Your task to perform on an android device: Open ESPN.com Image 0: 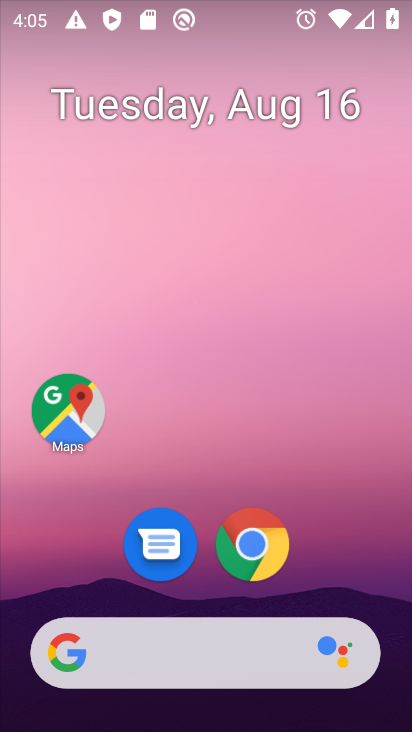
Step 0: click (266, 549)
Your task to perform on an android device: Open ESPN.com Image 1: 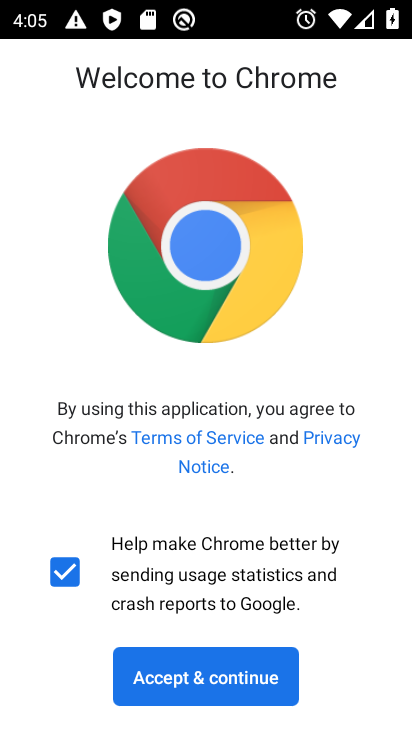
Step 1: click (193, 667)
Your task to perform on an android device: Open ESPN.com Image 2: 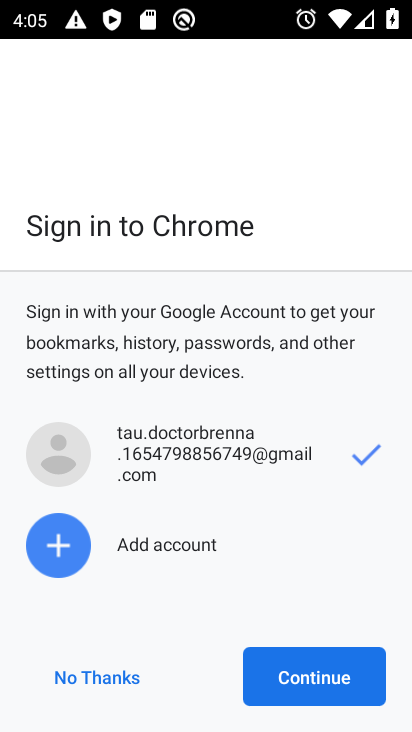
Step 2: click (281, 669)
Your task to perform on an android device: Open ESPN.com Image 3: 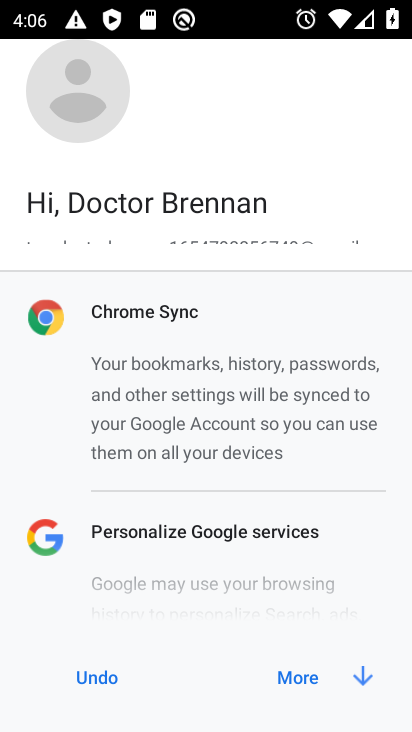
Step 3: click (317, 671)
Your task to perform on an android device: Open ESPN.com Image 4: 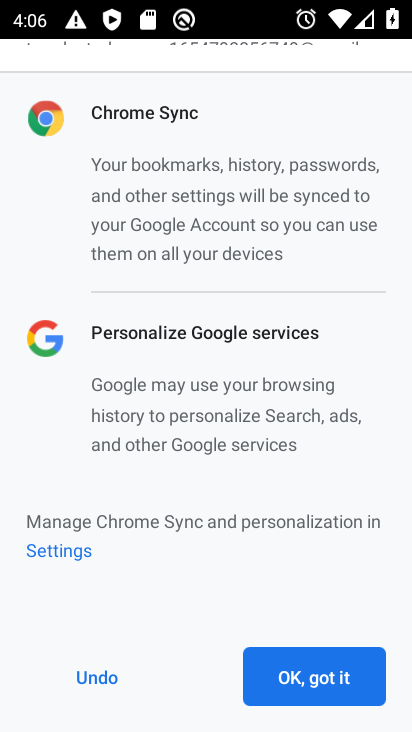
Step 4: click (318, 671)
Your task to perform on an android device: Open ESPN.com Image 5: 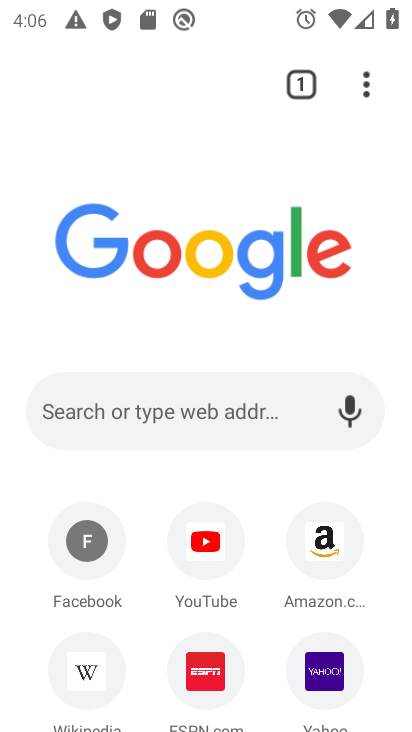
Step 5: click (212, 653)
Your task to perform on an android device: Open ESPN.com Image 6: 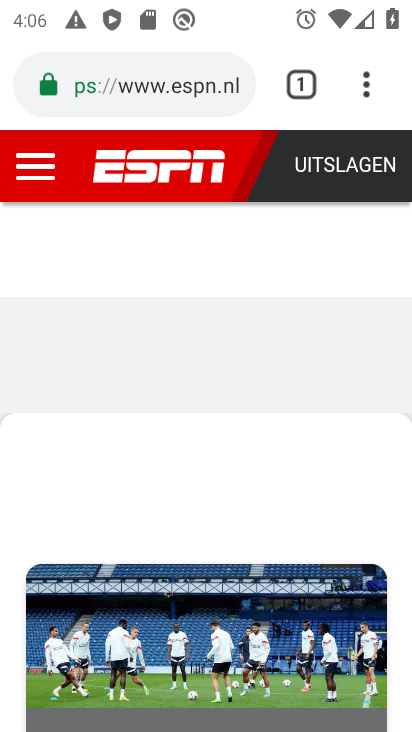
Step 6: task complete